Your task to perform on an android device: see sites visited before in the chrome app Image 0: 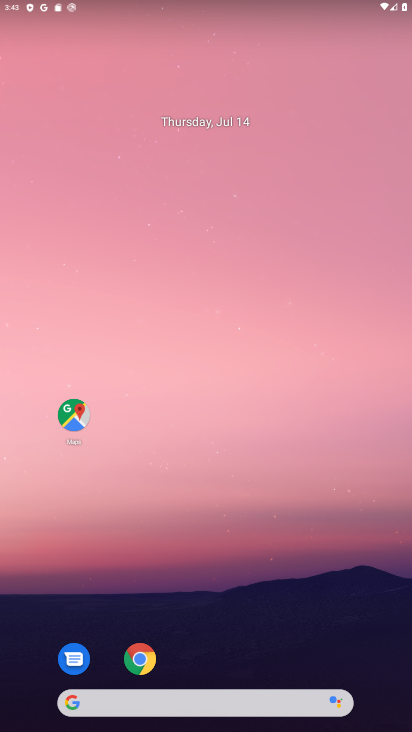
Step 0: drag from (346, 648) to (324, 128)
Your task to perform on an android device: see sites visited before in the chrome app Image 1: 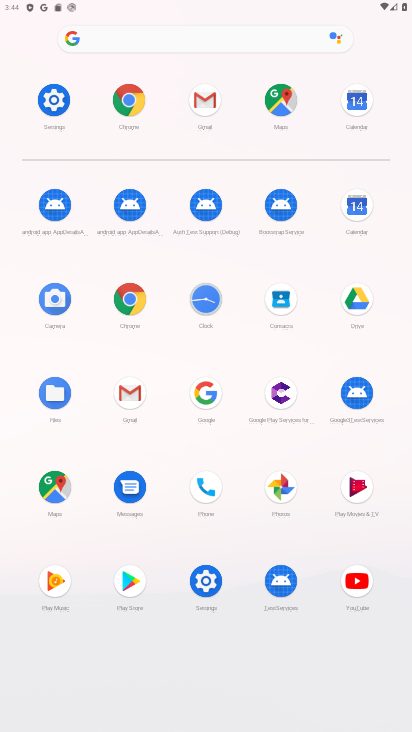
Step 1: click (131, 298)
Your task to perform on an android device: see sites visited before in the chrome app Image 2: 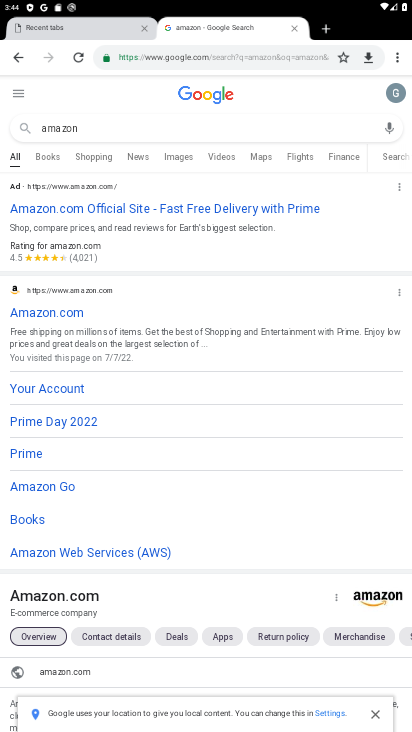
Step 2: click (400, 58)
Your task to perform on an android device: see sites visited before in the chrome app Image 3: 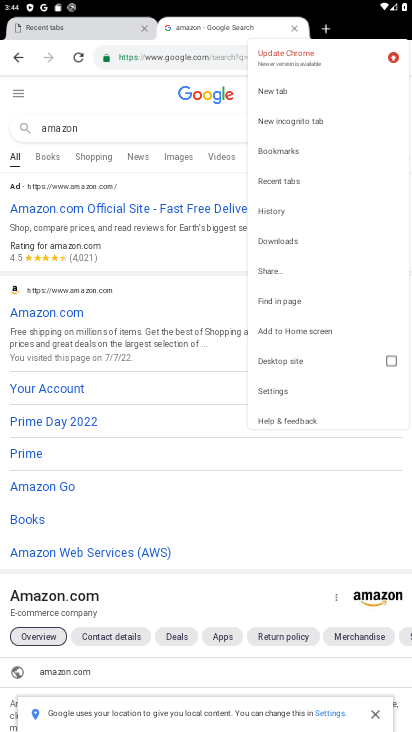
Step 3: click (291, 217)
Your task to perform on an android device: see sites visited before in the chrome app Image 4: 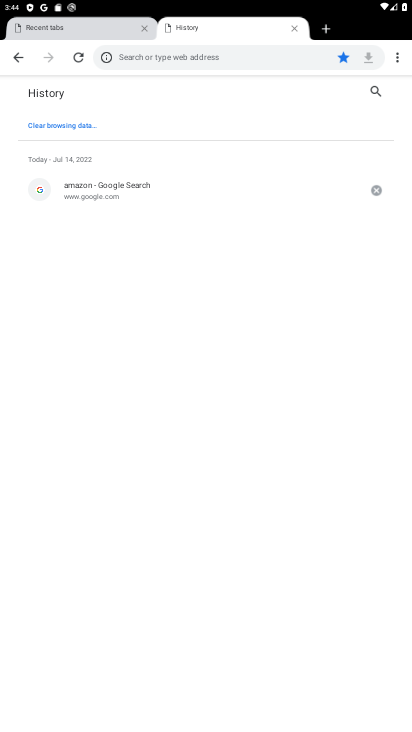
Step 4: task complete